Your task to perform on an android device: change keyboard looks Image 0: 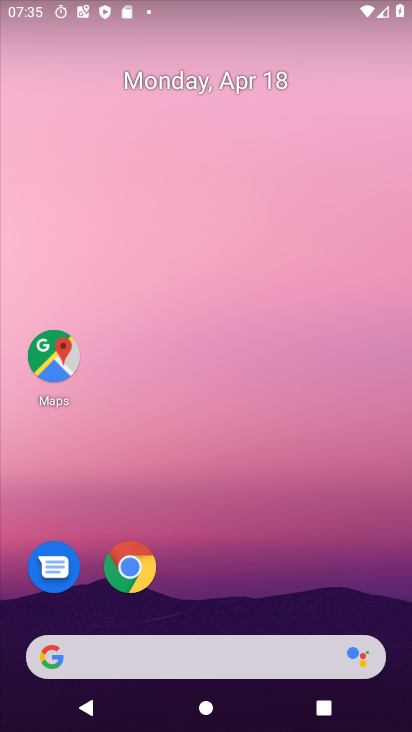
Step 0: drag from (298, 562) to (334, 1)
Your task to perform on an android device: change keyboard looks Image 1: 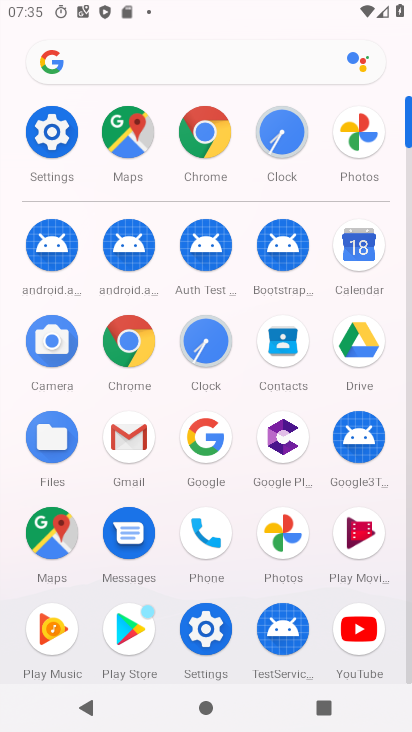
Step 1: click (62, 142)
Your task to perform on an android device: change keyboard looks Image 2: 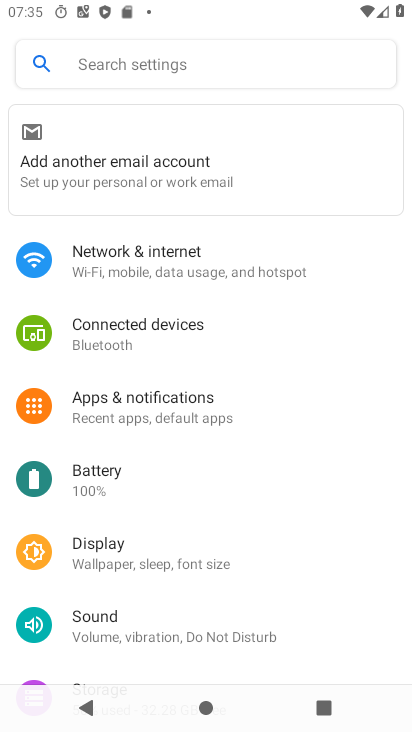
Step 2: drag from (224, 562) to (215, 116)
Your task to perform on an android device: change keyboard looks Image 3: 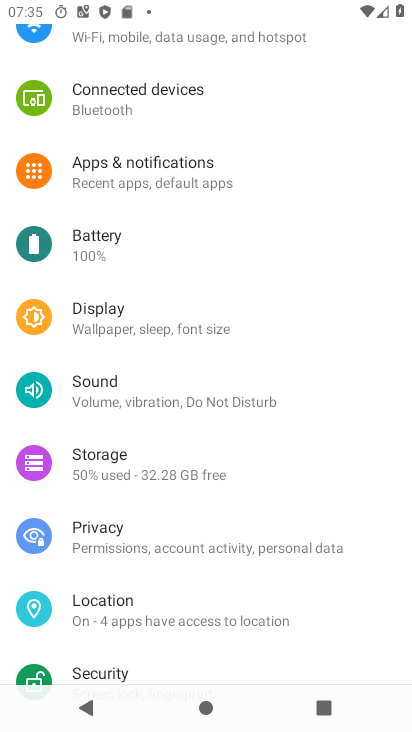
Step 3: drag from (248, 558) to (247, 214)
Your task to perform on an android device: change keyboard looks Image 4: 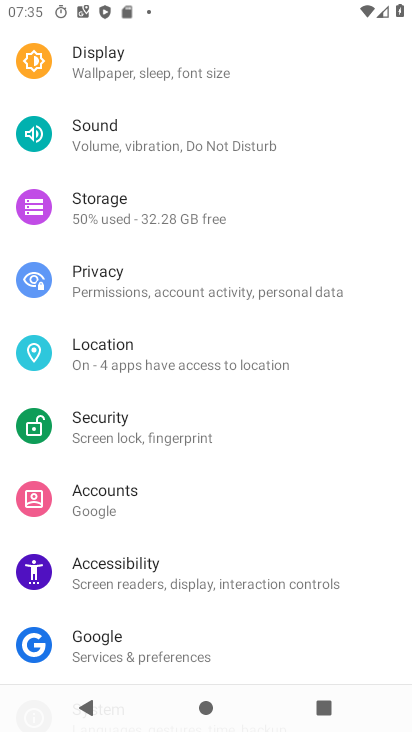
Step 4: drag from (209, 577) to (209, 53)
Your task to perform on an android device: change keyboard looks Image 5: 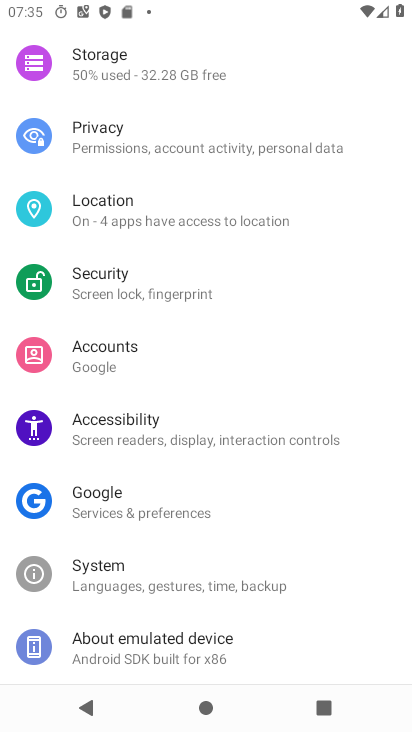
Step 5: click (116, 567)
Your task to perform on an android device: change keyboard looks Image 6: 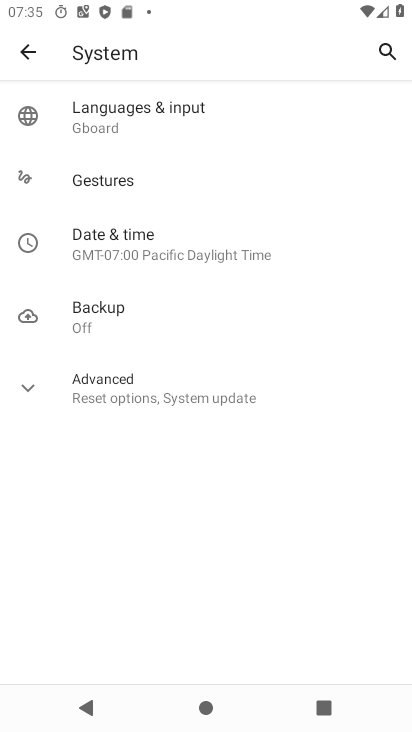
Step 6: click (133, 119)
Your task to perform on an android device: change keyboard looks Image 7: 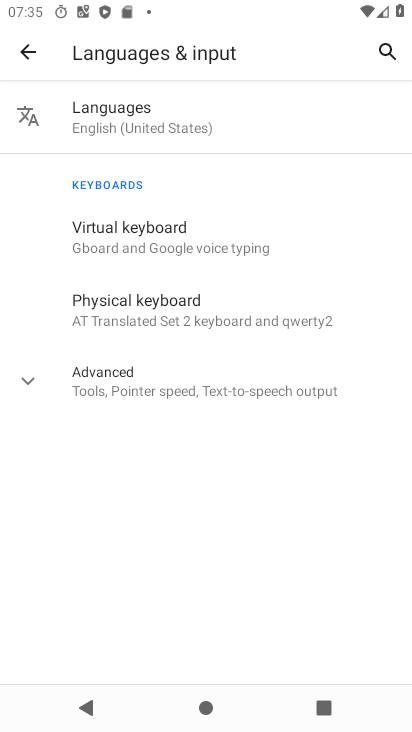
Step 7: click (142, 235)
Your task to perform on an android device: change keyboard looks Image 8: 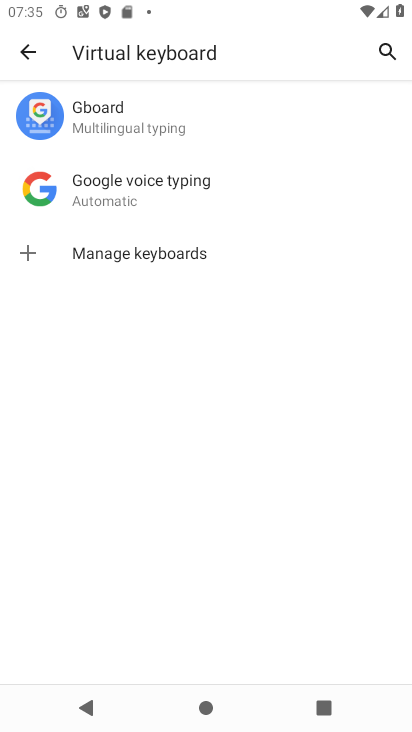
Step 8: click (214, 113)
Your task to perform on an android device: change keyboard looks Image 9: 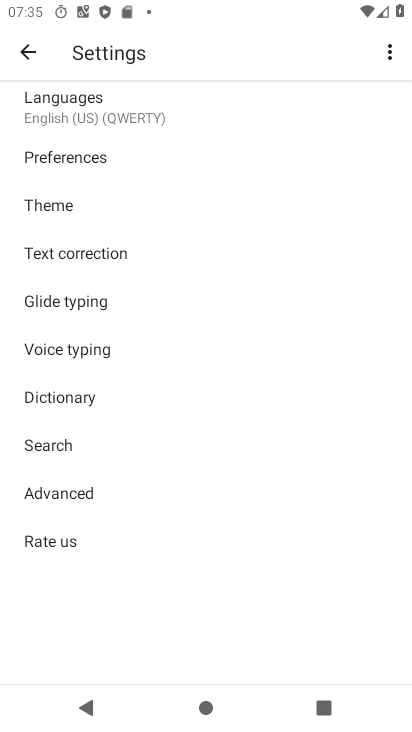
Step 9: click (153, 195)
Your task to perform on an android device: change keyboard looks Image 10: 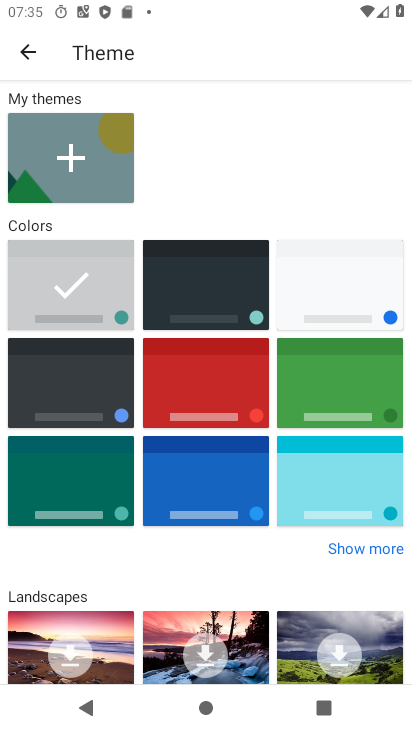
Step 10: click (46, 403)
Your task to perform on an android device: change keyboard looks Image 11: 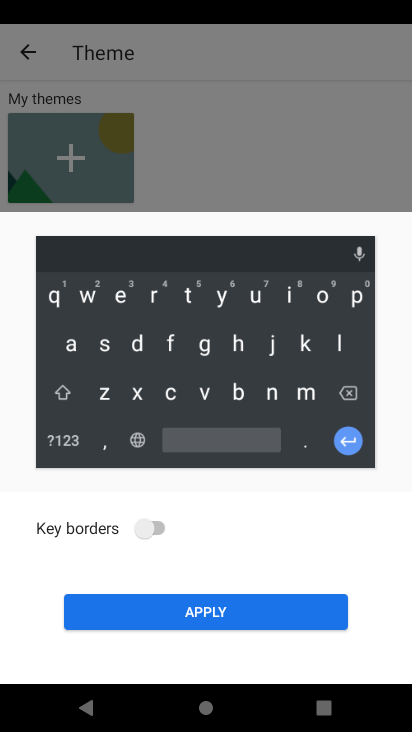
Step 11: click (160, 520)
Your task to perform on an android device: change keyboard looks Image 12: 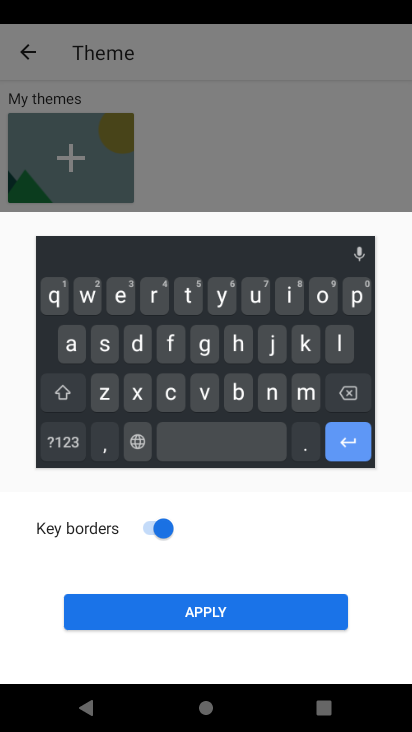
Step 12: click (160, 613)
Your task to perform on an android device: change keyboard looks Image 13: 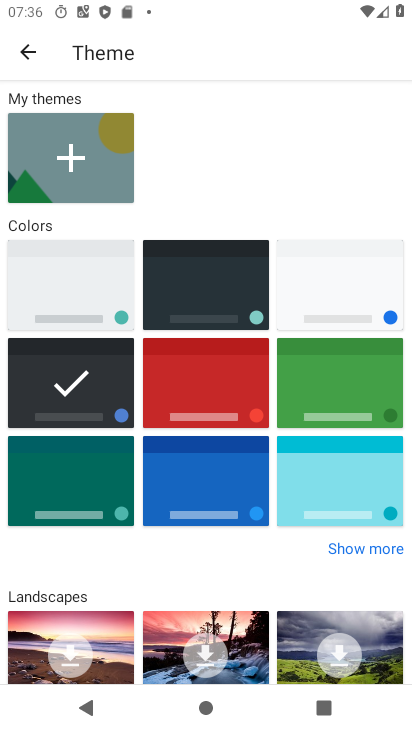
Step 13: task complete